Your task to perform on an android device: turn notification dots on Image 0: 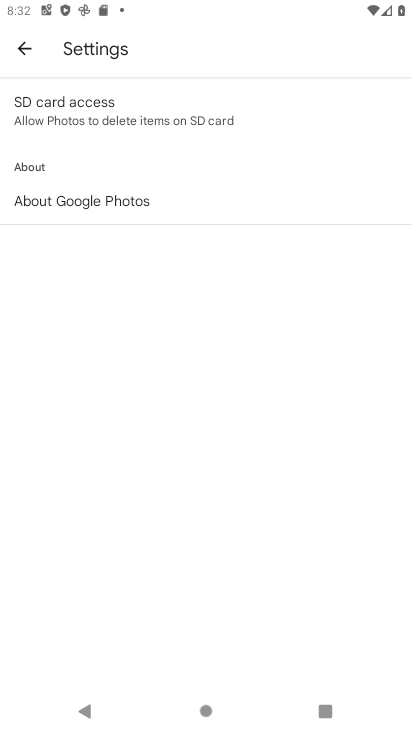
Step 0: press home button
Your task to perform on an android device: turn notification dots on Image 1: 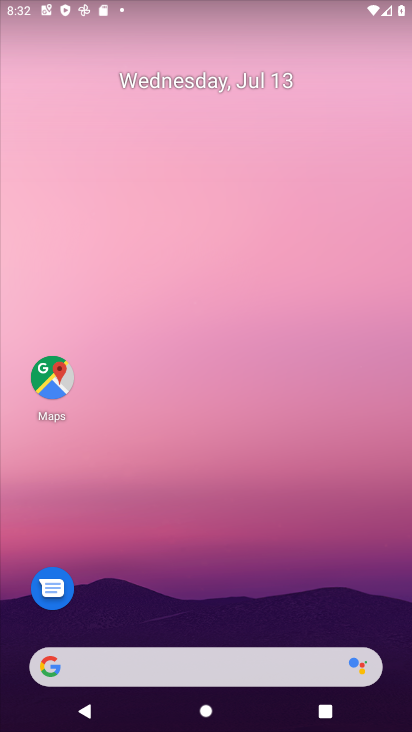
Step 1: drag from (165, 706) to (331, 0)
Your task to perform on an android device: turn notification dots on Image 2: 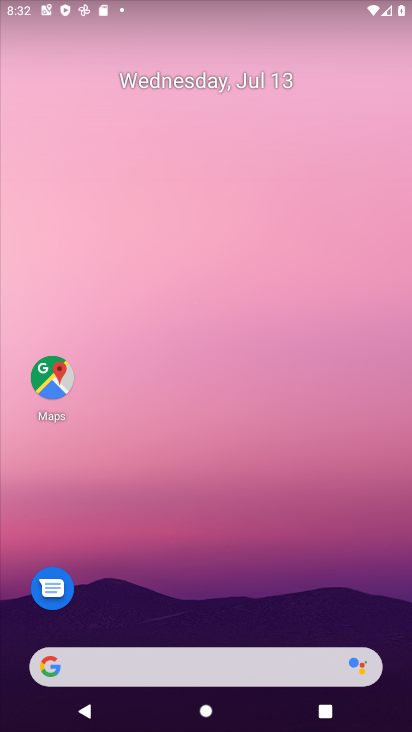
Step 2: drag from (160, 704) to (211, 1)
Your task to perform on an android device: turn notification dots on Image 3: 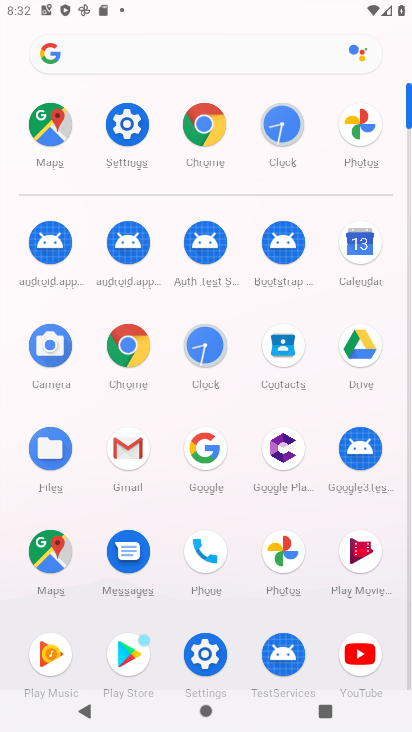
Step 3: click (124, 127)
Your task to perform on an android device: turn notification dots on Image 4: 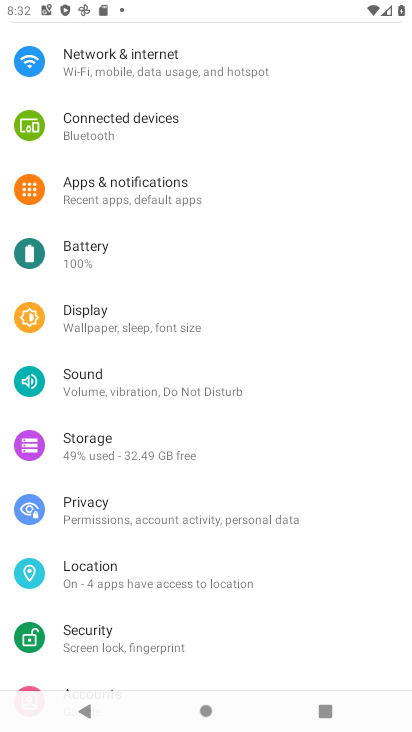
Step 4: click (180, 191)
Your task to perform on an android device: turn notification dots on Image 5: 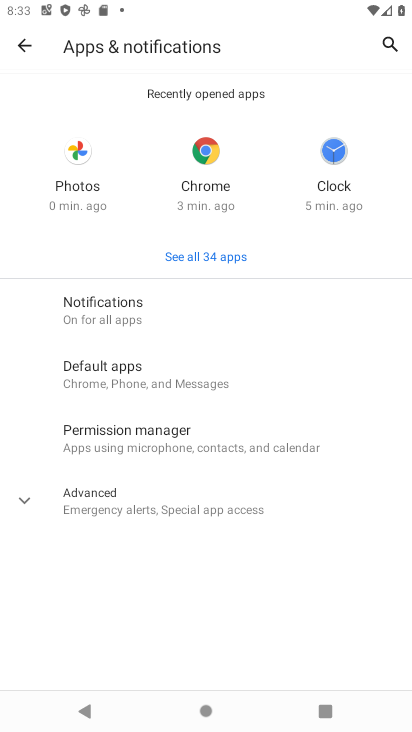
Step 5: click (131, 320)
Your task to perform on an android device: turn notification dots on Image 6: 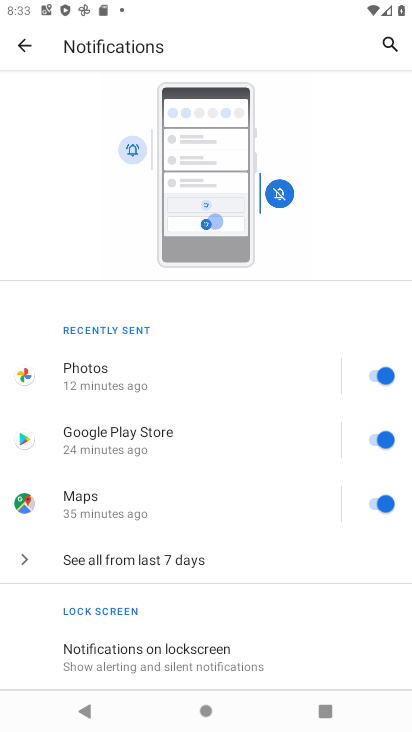
Step 6: drag from (243, 612) to (240, 2)
Your task to perform on an android device: turn notification dots on Image 7: 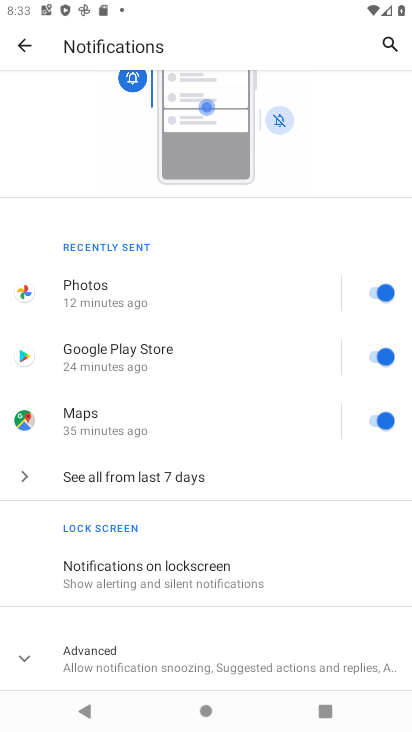
Step 7: click (164, 659)
Your task to perform on an android device: turn notification dots on Image 8: 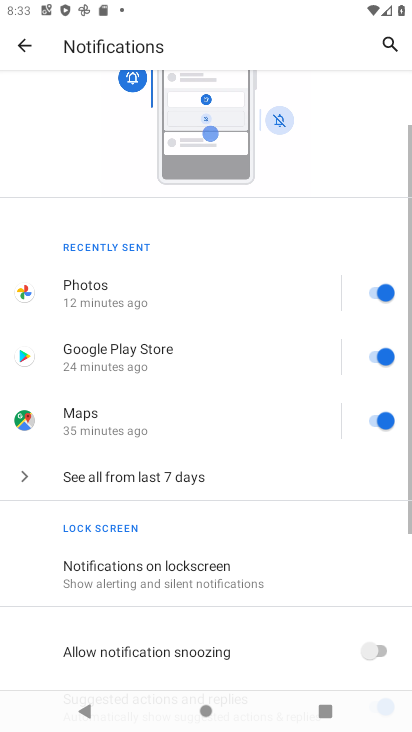
Step 8: task complete